Your task to perform on an android device: toggle translation in the chrome app Image 0: 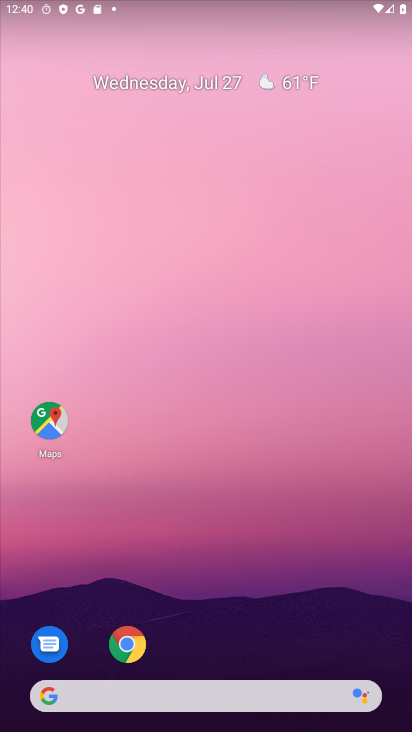
Step 0: drag from (161, 625) to (161, 266)
Your task to perform on an android device: toggle translation in the chrome app Image 1: 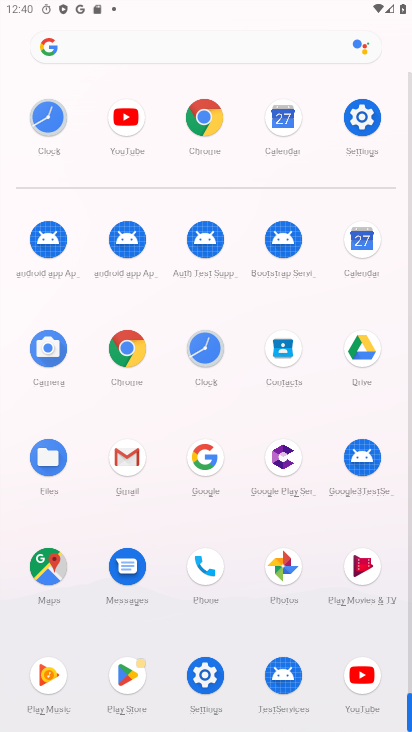
Step 1: click (124, 357)
Your task to perform on an android device: toggle translation in the chrome app Image 2: 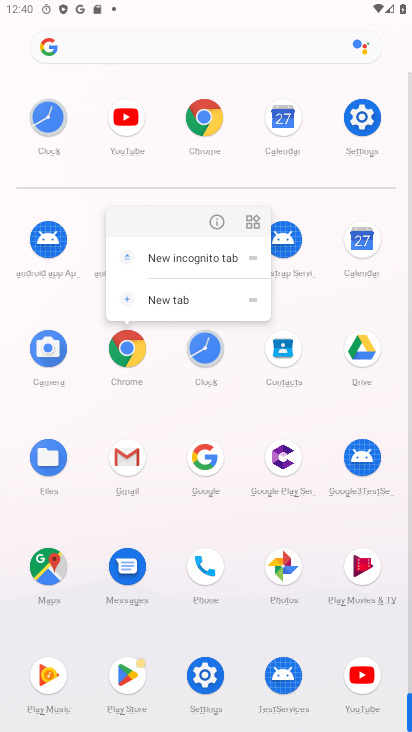
Step 2: click (215, 214)
Your task to perform on an android device: toggle translation in the chrome app Image 3: 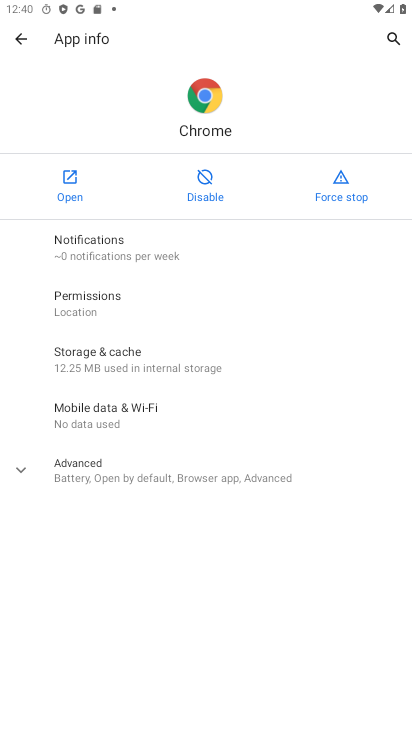
Step 3: click (63, 180)
Your task to perform on an android device: toggle translation in the chrome app Image 4: 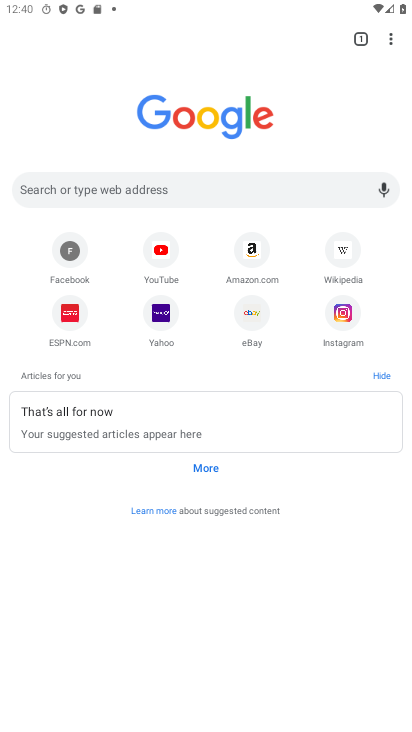
Step 4: drag from (235, 548) to (218, 271)
Your task to perform on an android device: toggle translation in the chrome app Image 5: 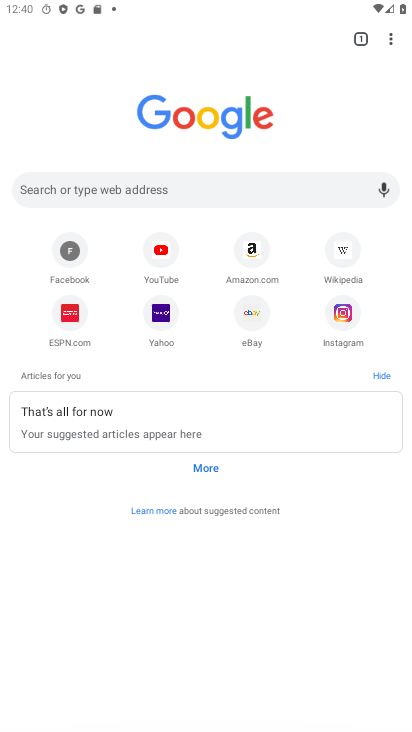
Step 5: drag from (247, 204) to (266, 561)
Your task to perform on an android device: toggle translation in the chrome app Image 6: 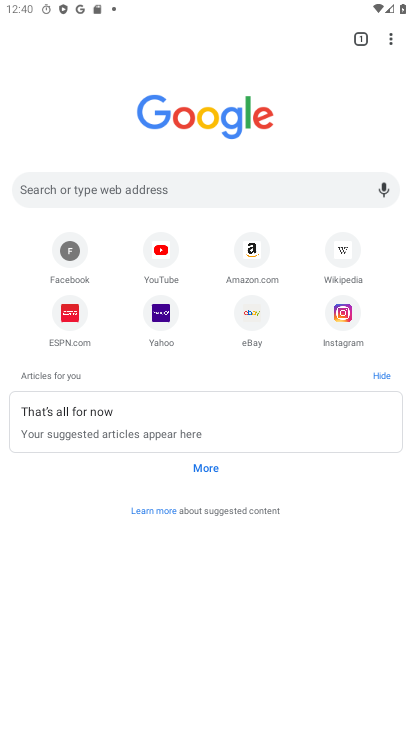
Step 6: drag from (390, 36) to (276, 378)
Your task to perform on an android device: toggle translation in the chrome app Image 7: 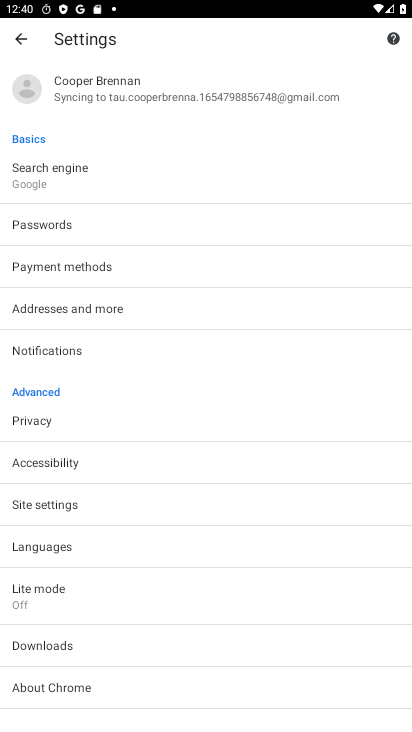
Step 7: click (74, 505)
Your task to perform on an android device: toggle translation in the chrome app Image 8: 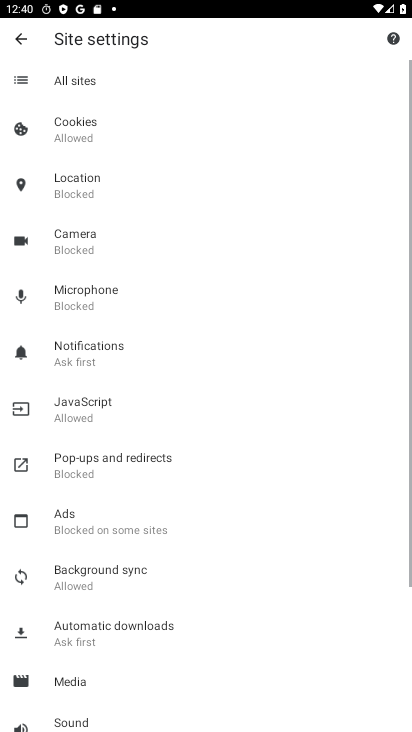
Step 8: click (19, 35)
Your task to perform on an android device: toggle translation in the chrome app Image 9: 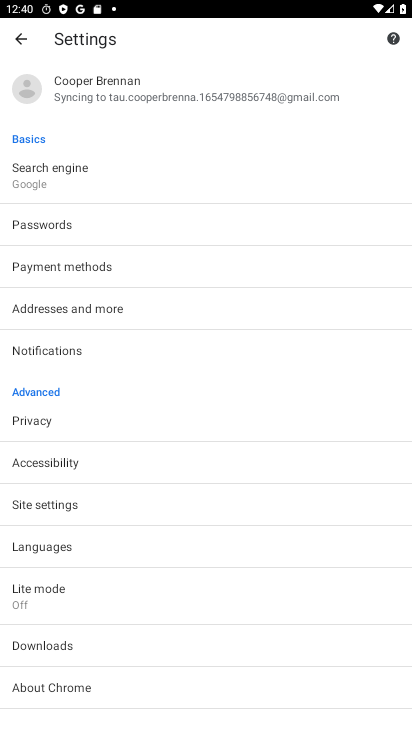
Step 9: drag from (77, 598) to (120, 329)
Your task to perform on an android device: toggle translation in the chrome app Image 10: 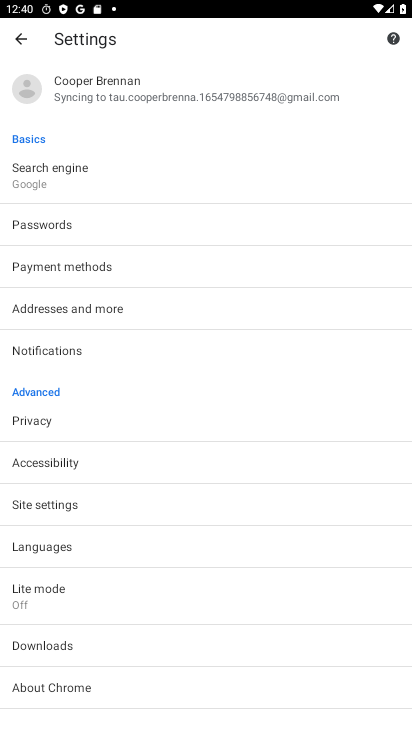
Step 10: click (74, 551)
Your task to perform on an android device: toggle translation in the chrome app Image 11: 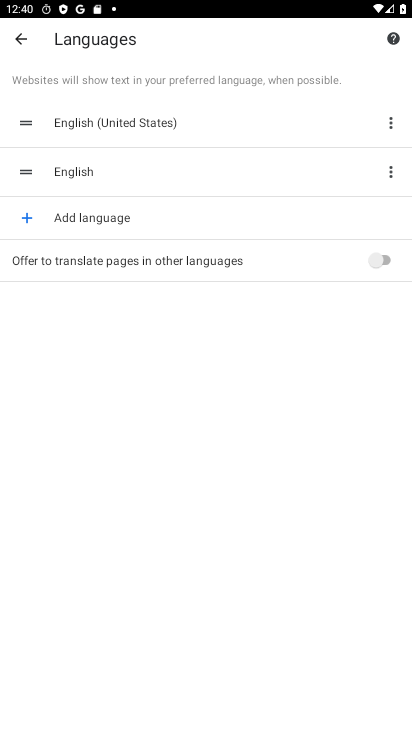
Step 11: click (301, 268)
Your task to perform on an android device: toggle translation in the chrome app Image 12: 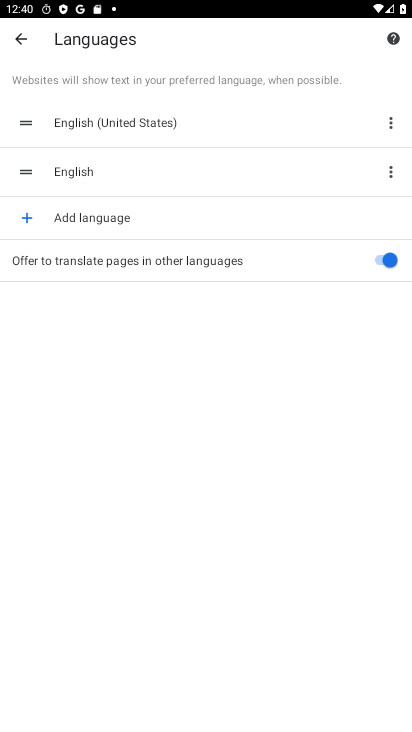
Step 12: task complete